Your task to perform on an android device: turn on data saver in the chrome app Image 0: 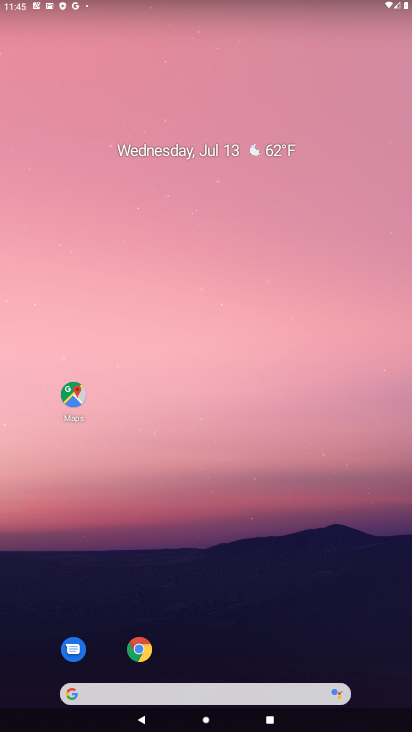
Step 0: drag from (327, 568) to (238, 0)
Your task to perform on an android device: turn on data saver in the chrome app Image 1: 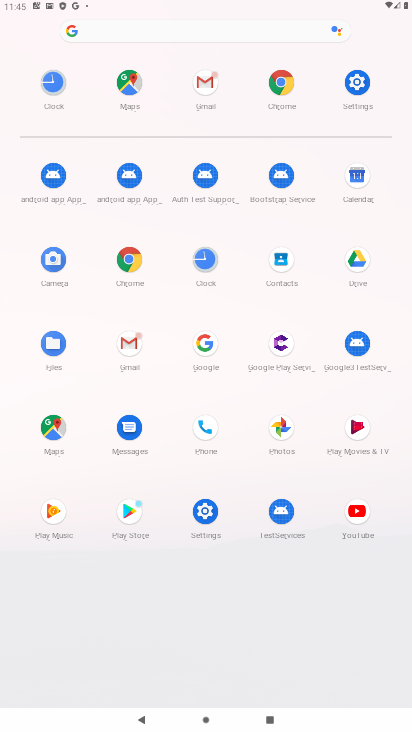
Step 1: click (284, 70)
Your task to perform on an android device: turn on data saver in the chrome app Image 2: 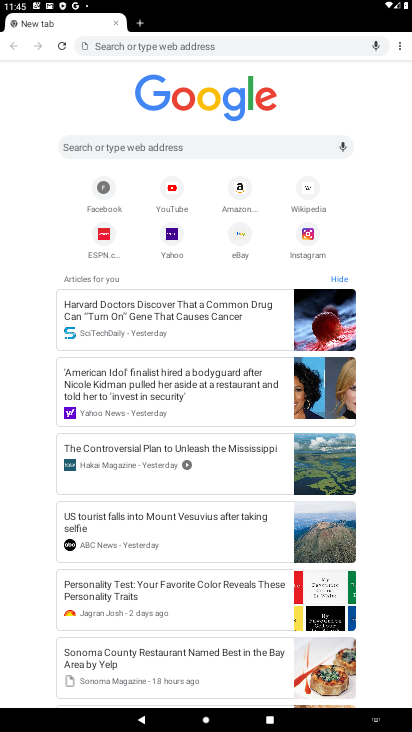
Step 2: click (397, 42)
Your task to perform on an android device: turn on data saver in the chrome app Image 3: 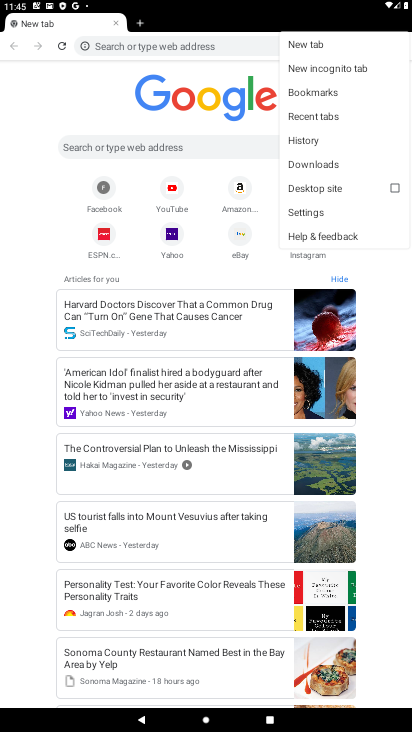
Step 3: click (317, 213)
Your task to perform on an android device: turn on data saver in the chrome app Image 4: 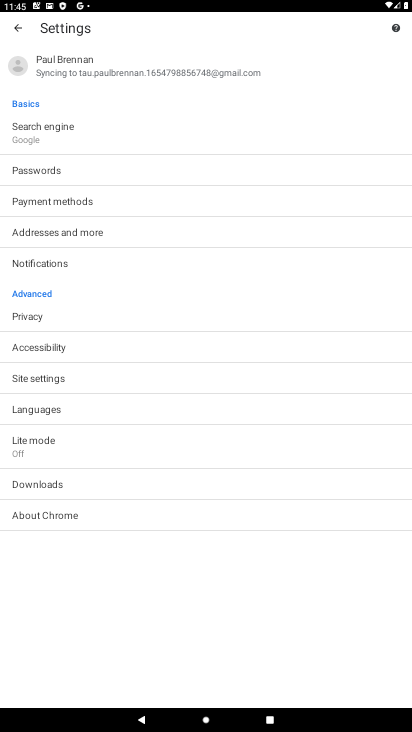
Step 4: click (105, 451)
Your task to perform on an android device: turn on data saver in the chrome app Image 5: 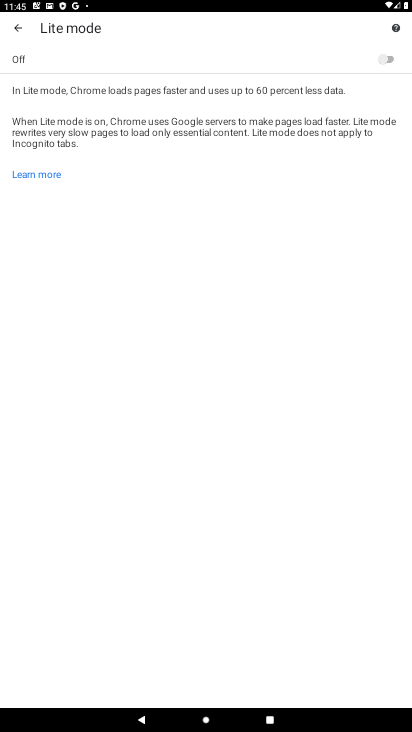
Step 5: click (392, 54)
Your task to perform on an android device: turn on data saver in the chrome app Image 6: 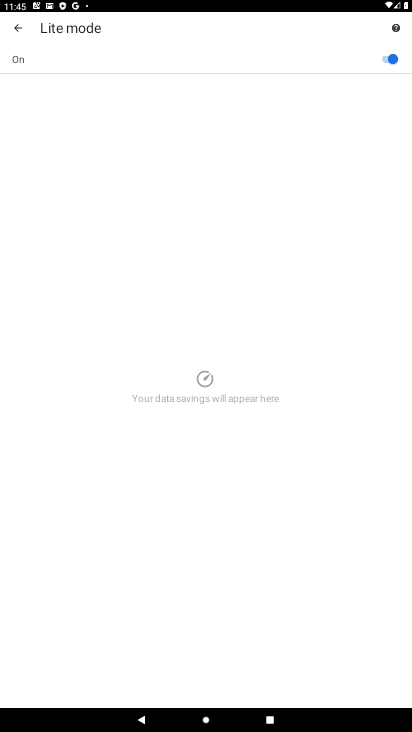
Step 6: task complete